Your task to perform on an android device: Open calendar and show me the fourth week of next month Image 0: 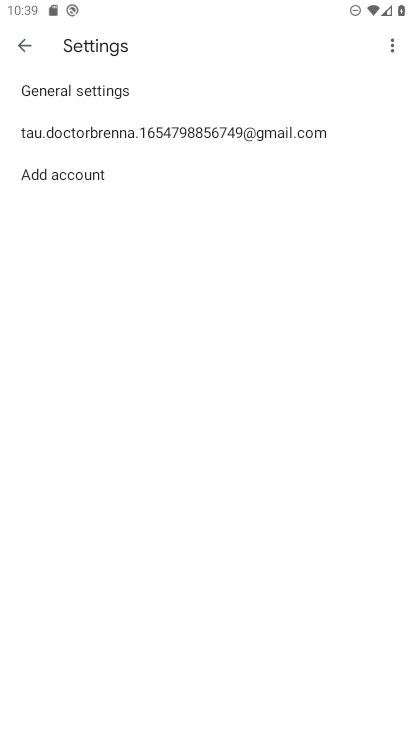
Step 0: press home button
Your task to perform on an android device: Open calendar and show me the fourth week of next month Image 1: 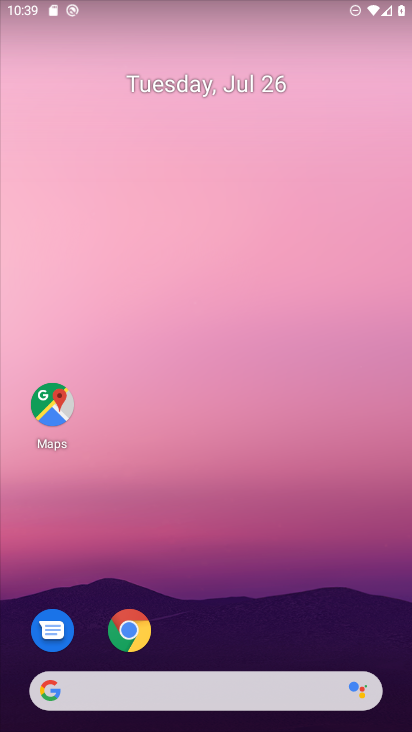
Step 1: drag from (350, 621) to (288, 197)
Your task to perform on an android device: Open calendar and show me the fourth week of next month Image 2: 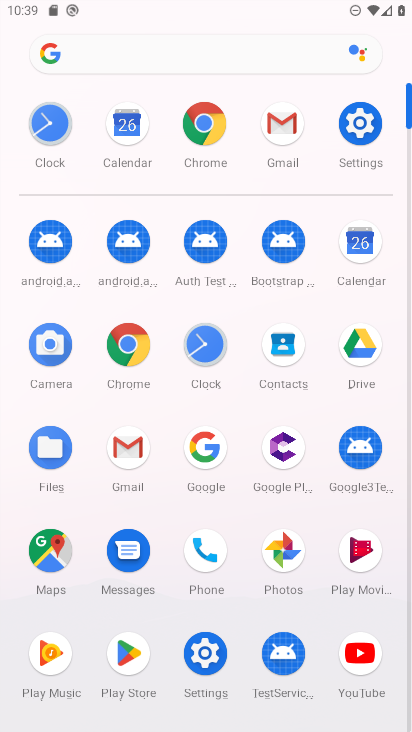
Step 2: click (358, 244)
Your task to perform on an android device: Open calendar and show me the fourth week of next month Image 3: 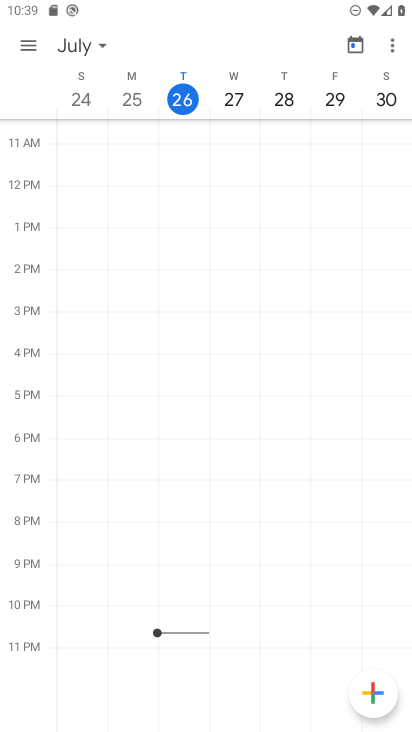
Step 3: click (101, 45)
Your task to perform on an android device: Open calendar and show me the fourth week of next month Image 4: 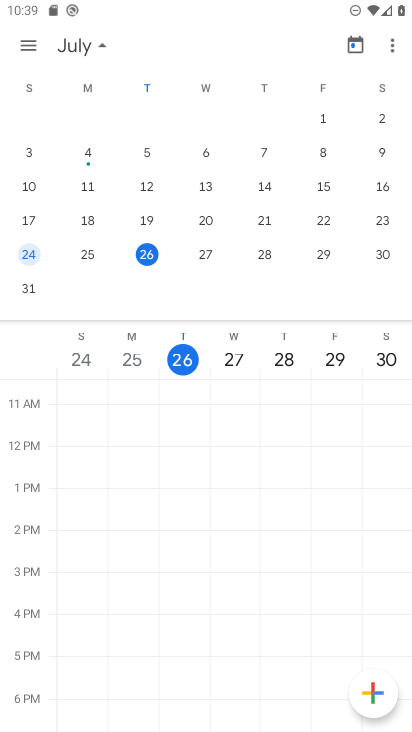
Step 4: drag from (386, 239) to (52, 237)
Your task to perform on an android device: Open calendar and show me the fourth week of next month Image 5: 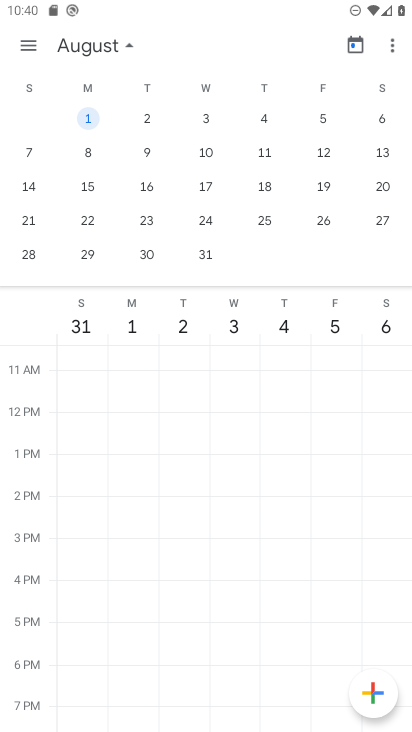
Step 5: click (25, 254)
Your task to perform on an android device: Open calendar and show me the fourth week of next month Image 6: 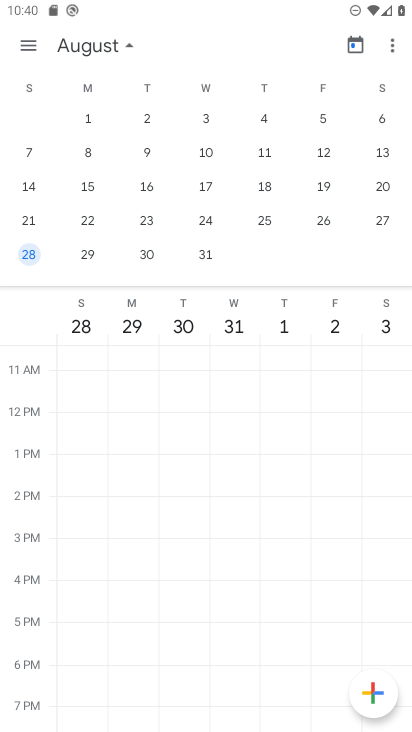
Step 6: task complete